Your task to perform on an android device: Go to Maps Image 0: 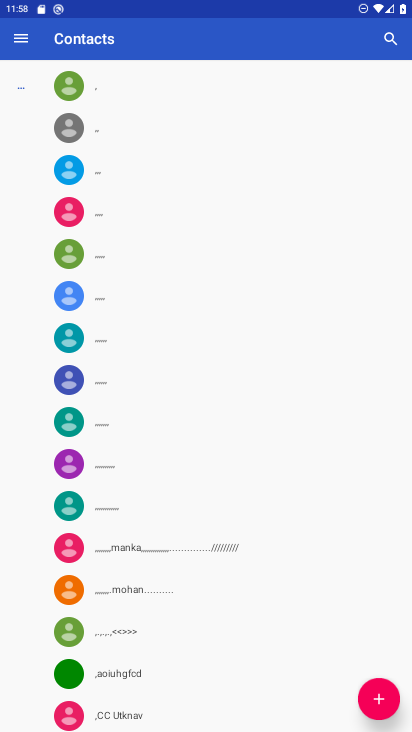
Step 0: press home button
Your task to perform on an android device: Go to Maps Image 1: 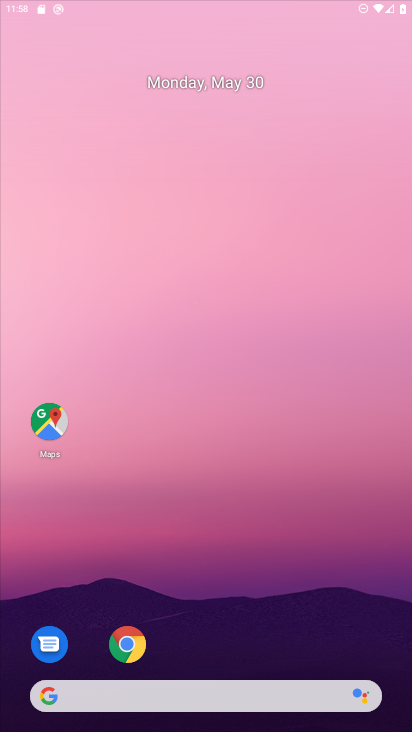
Step 1: drag from (192, 620) to (254, 202)
Your task to perform on an android device: Go to Maps Image 2: 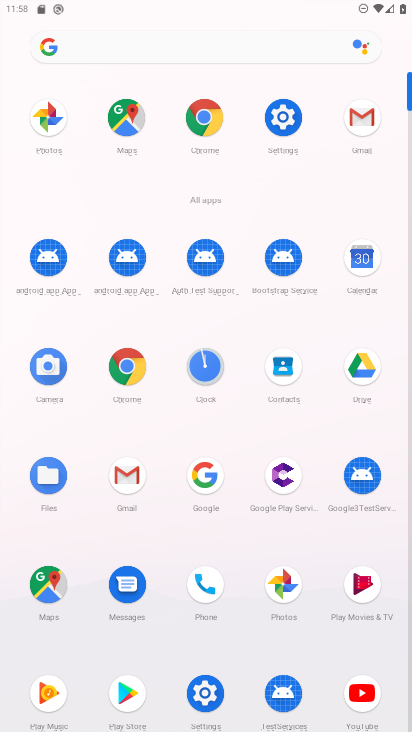
Step 2: click (49, 581)
Your task to perform on an android device: Go to Maps Image 3: 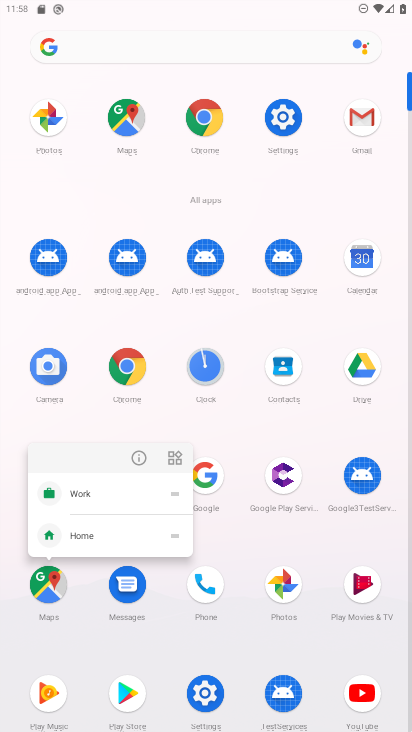
Step 3: click (136, 456)
Your task to perform on an android device: Go to Maps Image 4: 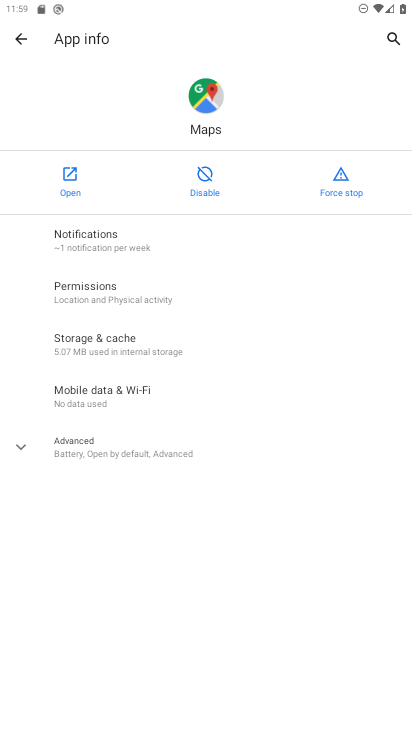
Step 4: click (69, 179)
Your task to perform on an android device: Go to Maps Image 5: 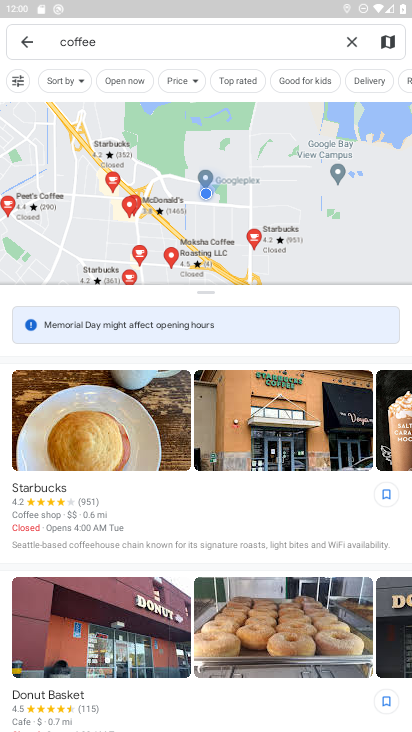
Step 5: task complete